Your task to perform on an android device: What's the weather going to be tomorrow? Image 0: 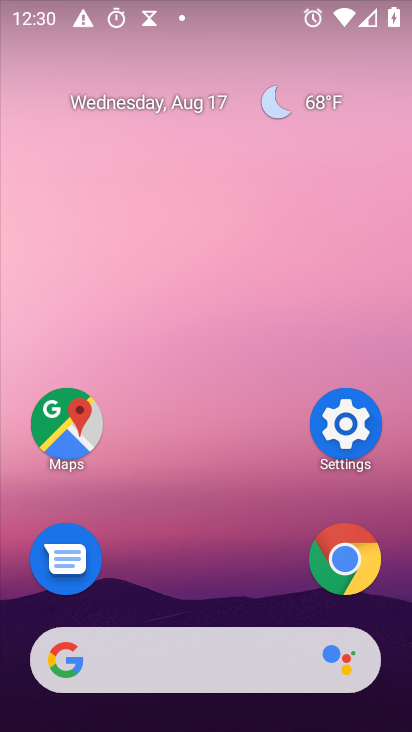
Step 0: click (152, 649)
Your task to perform on an android device: What's the weather going to be tomorrow? Image 1: 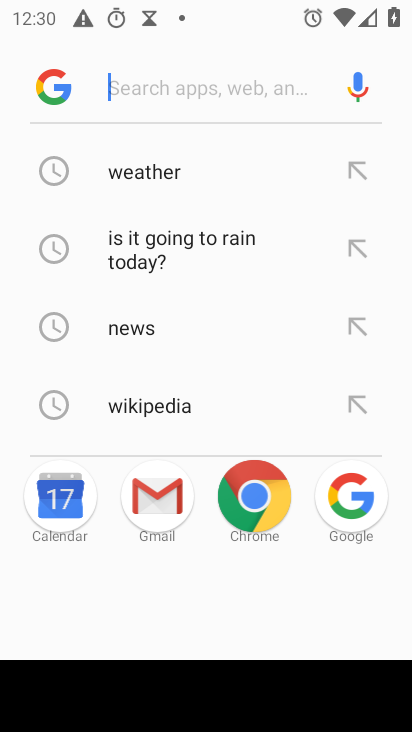
Step 1: click (125, 171)
Your task to perform on an android device: What's the weather going to be tomorrow? Image 2: 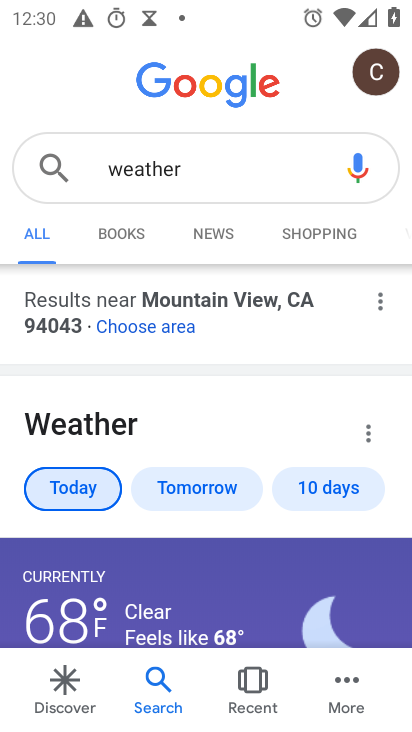
Step 2: drag from (212, 612) to (285, 130)
Your task to perform on an android device: What's the weather going to be tomorrow? Image 3: 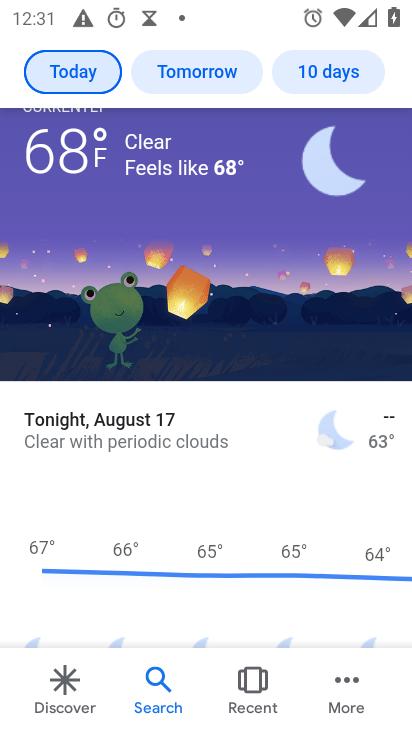
Step 3: click (194, 71)
Your task to perform on an android device: What's the weather going to be tomorrow? Image 4: 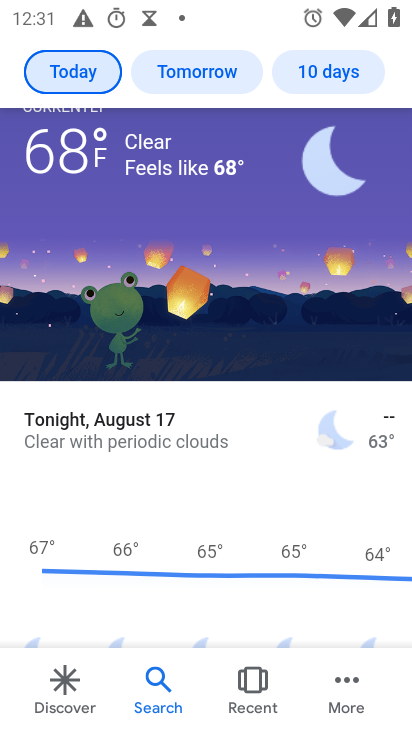
Step 4: click (195, 72)
Your task to perform on an android device: What's the weather going to be tomorrow? Image 5: 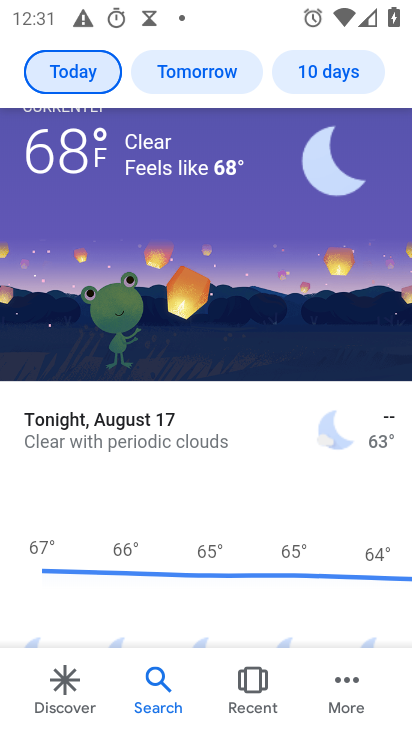
Step 5: click (221, 70)
Your task to perform on an android device: What's the weather going to be tomorrow? Image 6: 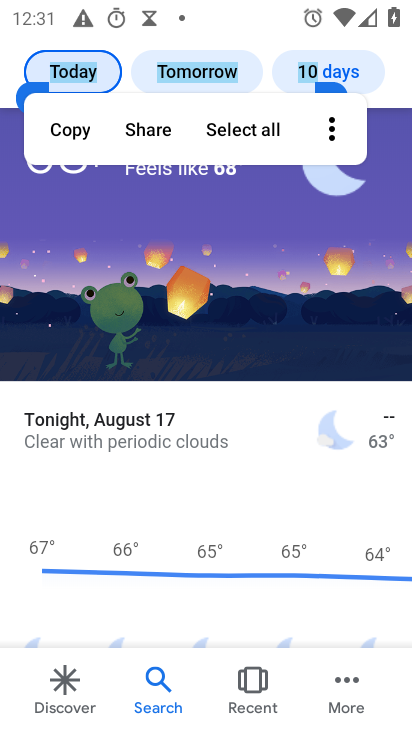
Step 6: click (213, 64)
Your task to perform on an android device: What's the weather going to be tomorrow? Image 7: 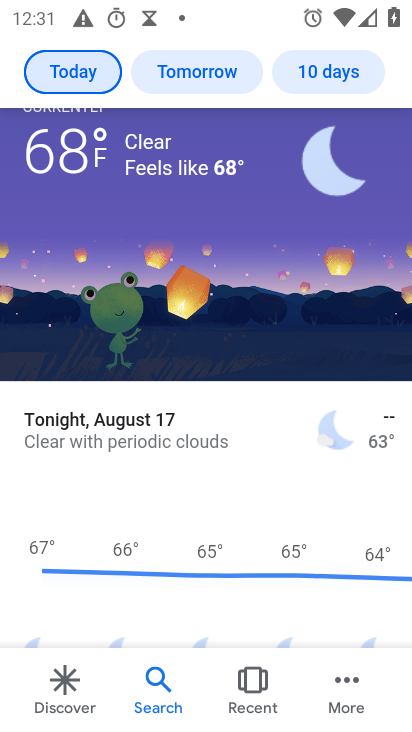
Step 7: click (195, 61)
Your task to perform on an android device: What's the weather going to be tomorrow? Image 8: 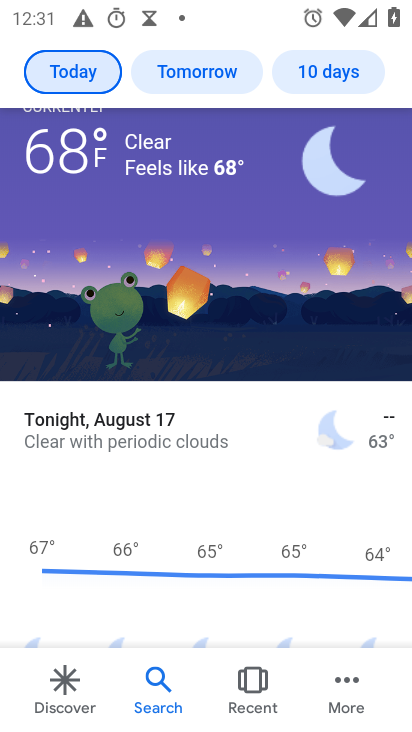
Step 8: click (204, 72)
Your task to perform on an android device: What's the weather going to be tomorrow? Image 9: 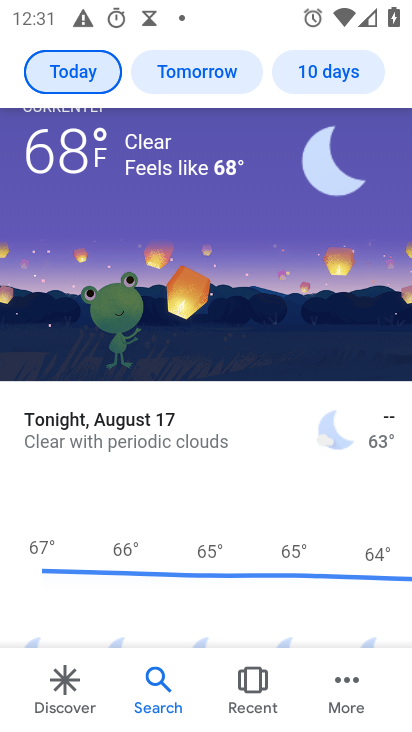
Step 9: click (186, 81)
Your task to perform on an android device: What's the weather going to be tomorrow? Image 10: 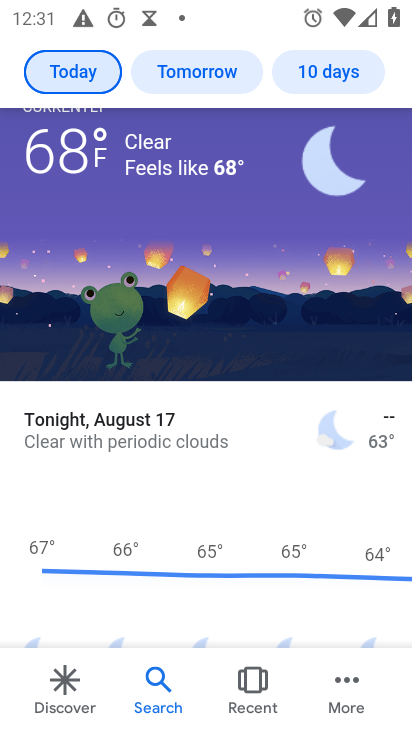
Step 10: click (224, 77)
Your task to perform on an android device: What's the weather going to be tomorrow? Image 11: 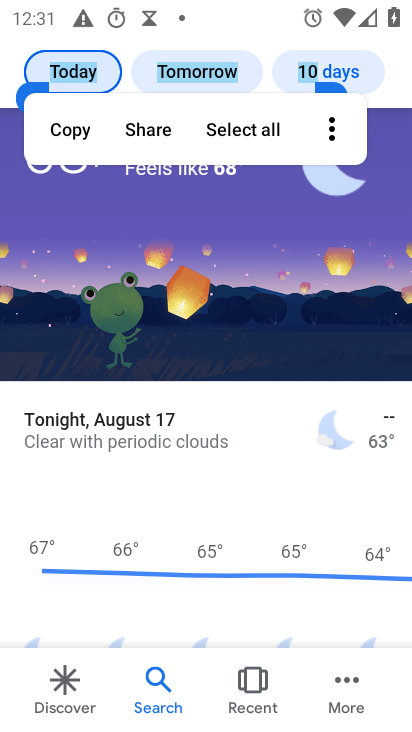
Step 11: click (216, 67)
Your task to perform on an android device: What's the weather going to be tomorrow? Image 12: 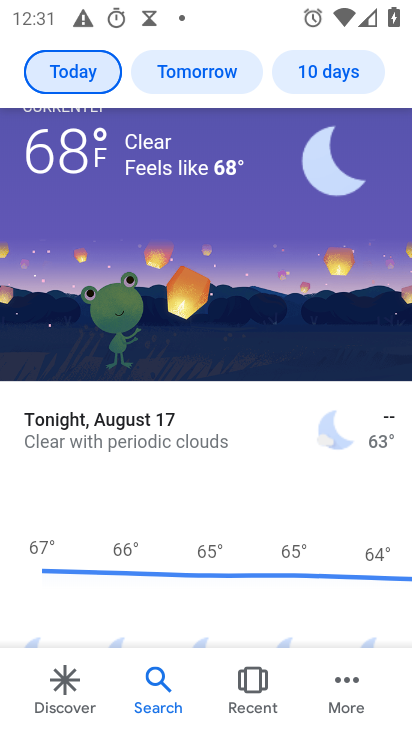
Step 12: task complete